Your task to perform on an android device: open app "Upside-Cash back on gas & food" (install if not already installed) Image 0: 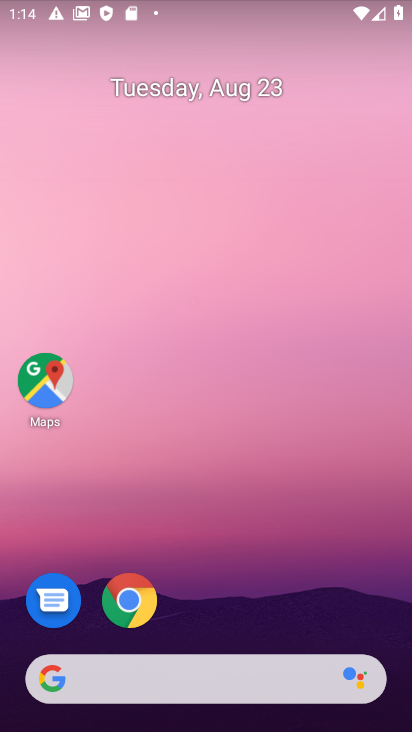
Step 0: drag from (262, 172) to (116, 185)
Your task to perform on an android device: open app "Upside-Cash back on gas & food" (install if not already installed) Image 1: 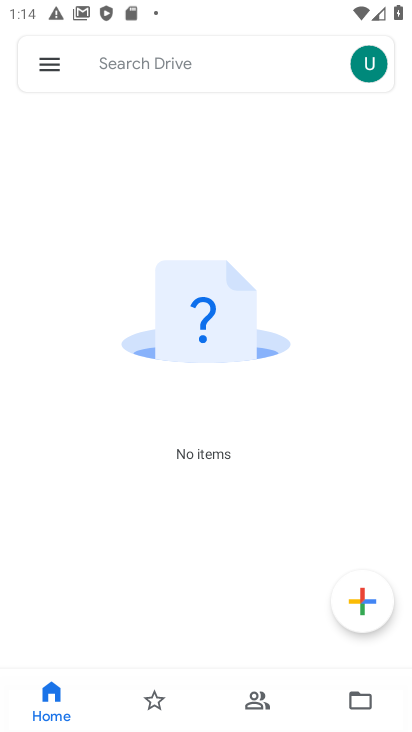
Step 1: press home button
Your task to perform on an android device: open app "Upside-Cash back on gas & food" (install if not already installed) Image 2: 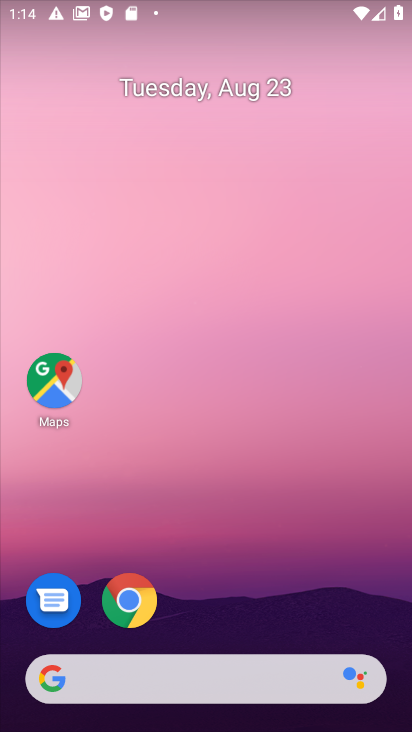
Step 2: drag from (224, 662) to (218, 208)
Your task to perform on an android device: open app "Upside-Cash back on gas & food" (install if not already installed) Image 3: 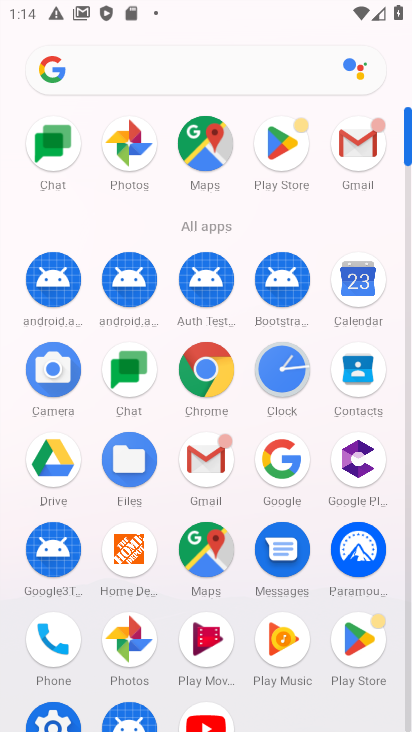
Step 3: click (282, 199)
Your task to perform on an android device: open app "Upside-Cash back on gas & food" (install if not already installed) Image 4: 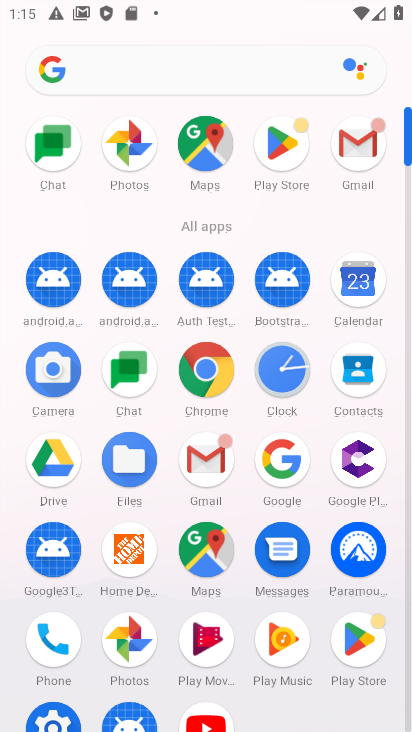
Step 4: click (270, 149)
Your task to perform on an android device: open app "Upside-Cash back on gas & food" (install if not already installed) Image 5: 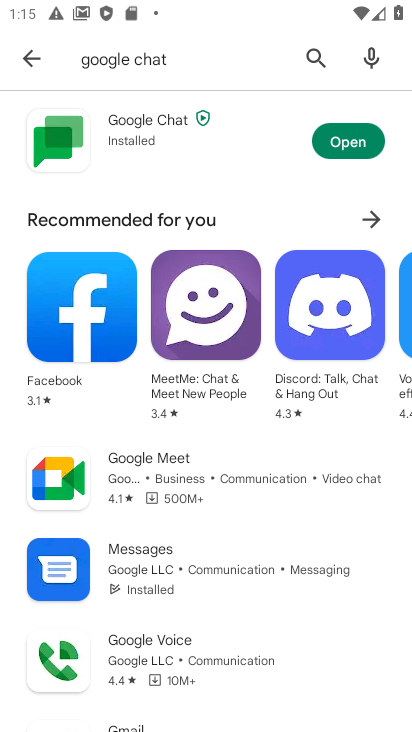
Step 5: click (318, 60)
Your task to perform on an android device: open app "Upside-Cash back on gas & food" (install if not already installed) Image 6: 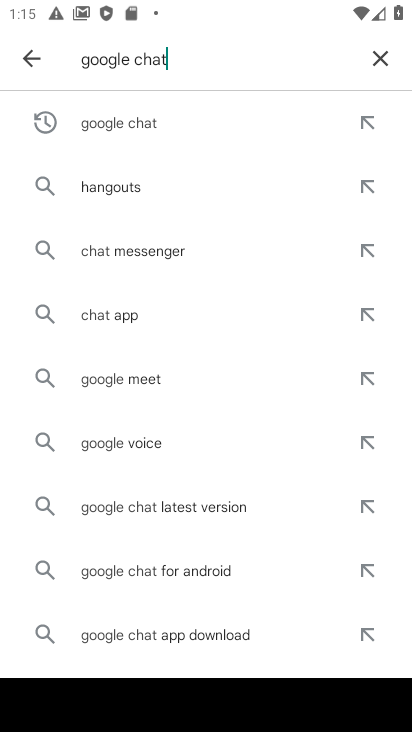
Step 6: click (373, 59)
Your task to perform on an android device: open app "Upside-Cash back on gas & food" (install if not already installed) Image 7: 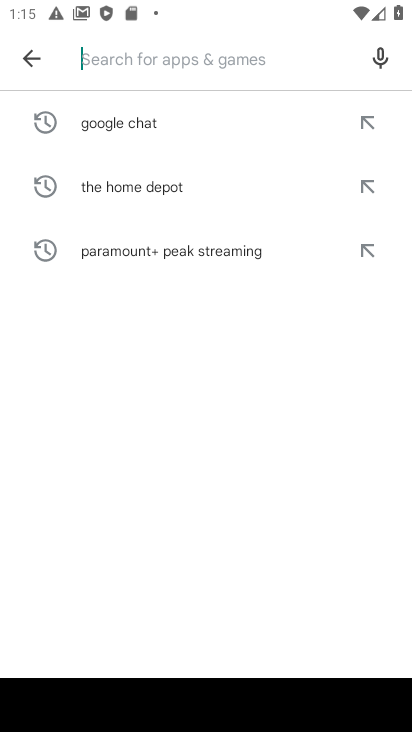
Step 7: type "Upside-Cash back on gas & food"
Your task to perform on an android device: open app "Upside-Cash back on gas & food" (install if not already installed) Image 8: 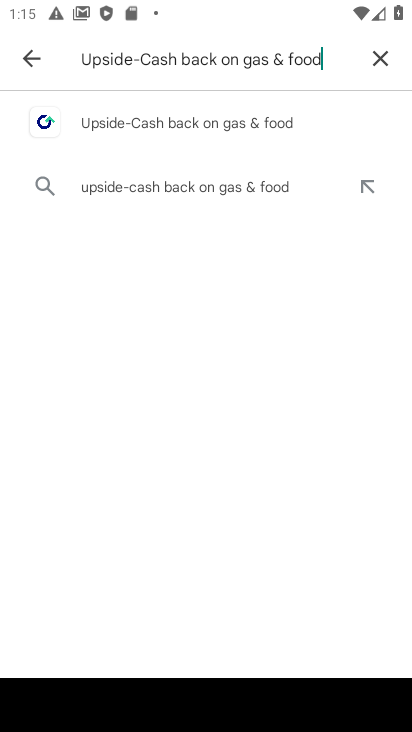
Step 8: click (123, 117)
Your task to perform on an android device: open app "Upside-Cash back on gas & food" (install if not already installed) Image 9: 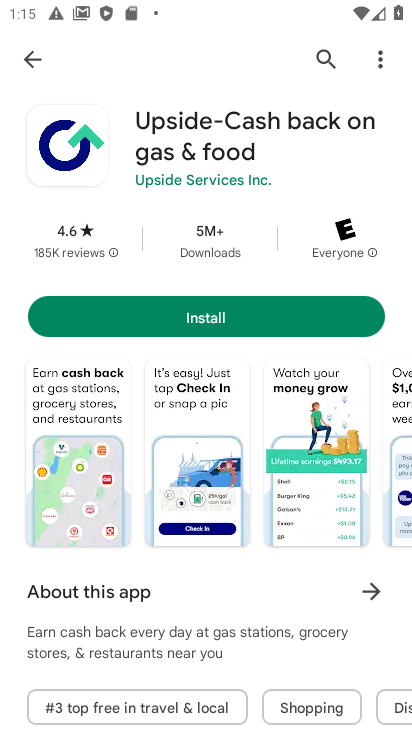
Step 9: click (197, 316)
Your task to perform on an android device: open app "Upside-Cash back on gas & food" (install if not already installed) Image 10: 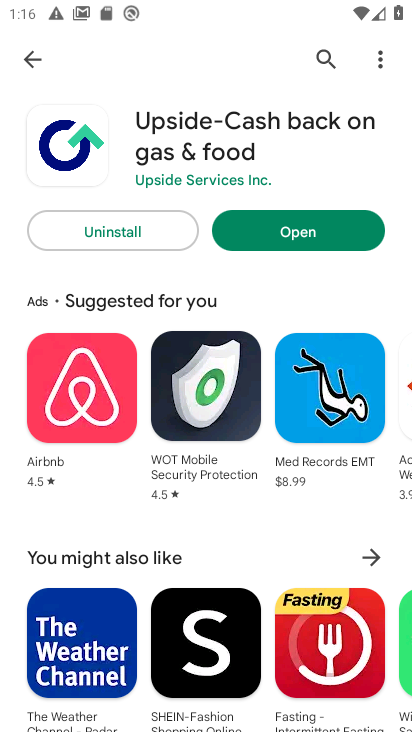
Step 10: click (305, 237)
Your task to perform on an android device: open app "Upside-Cash back on gas & food" (install if not already installed) Image 11: 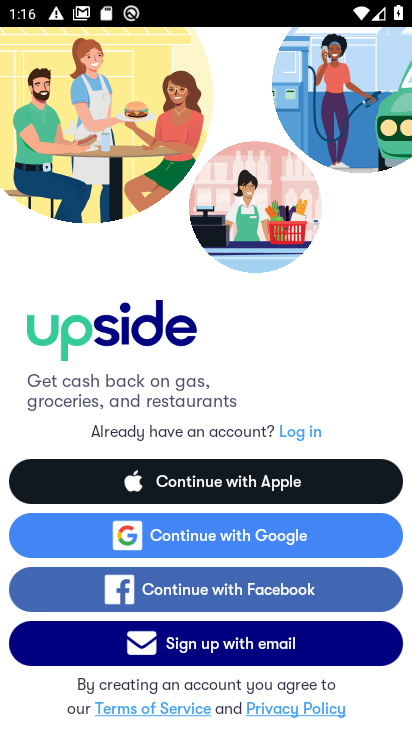
Step 11: task complete